Your task to perform on an android device: Set the phone to "Do not disturb". Image 0: 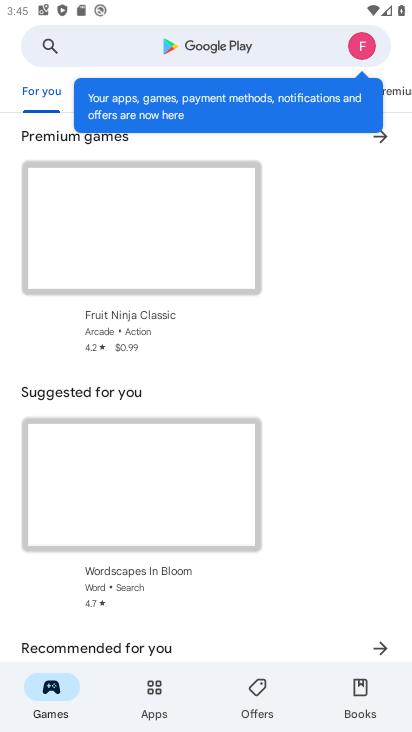
Step 0: press home button
Your task to perform on an android device: Set the phone to "Do not disturb". Image 1: 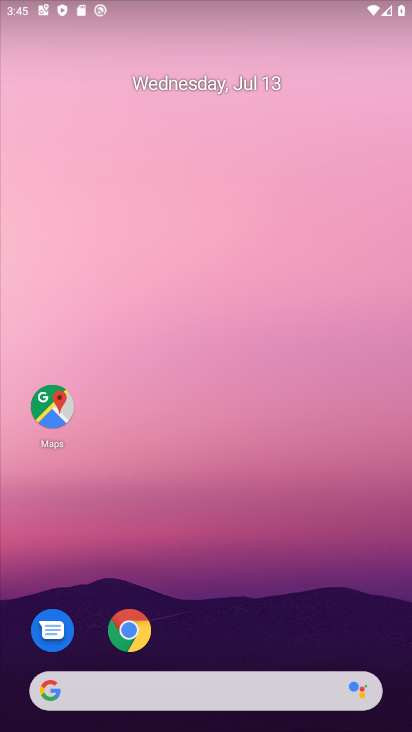
Step 1: drag from (292, 624) to (331, 33)
Your task to perform on an android device: Set the phone to "Do not disturb". Image 2: 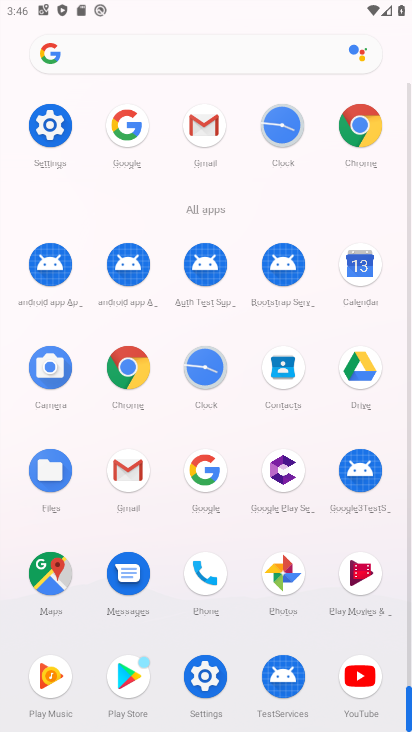
Step 2: click (60, 127)
Your task to perform on an android device: Set the phone to "Do not disturb". Image 3: 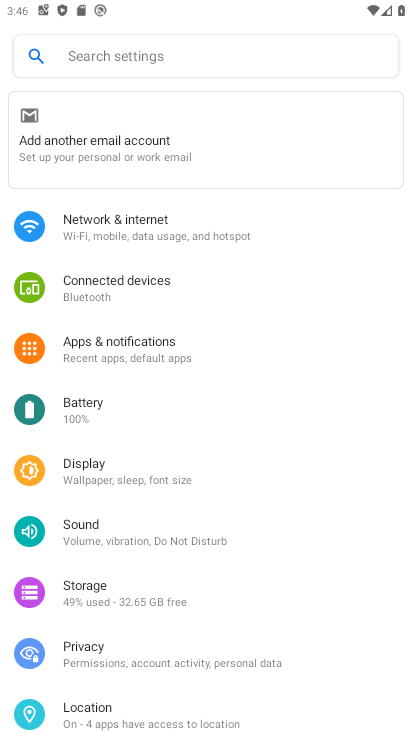
Step 3: click (147, 554)
Your task to perform on an android device: Set the phone to "Do not disturb". Image 4: 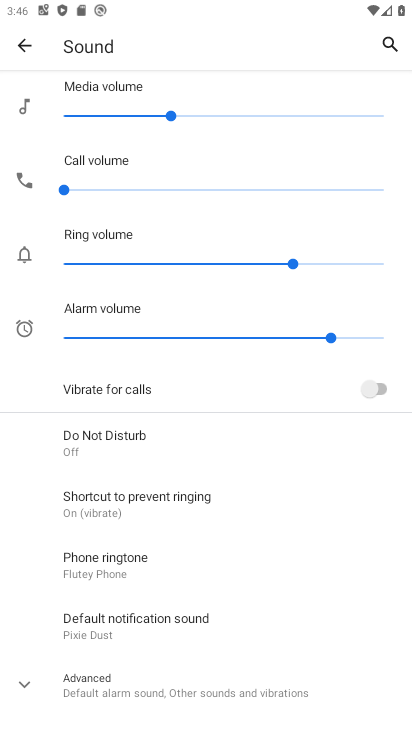
Step 4: click (76, 445)
Your task to perform on an android device: Set the phone to "Do not disturb". Image 5: 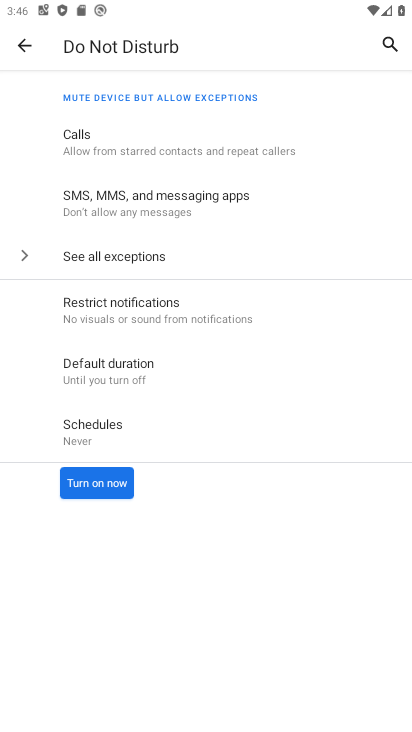
Step 5: click (100, 479)
Your task to perform on an android device: Set the phone to "Do not disturb". Image 6: 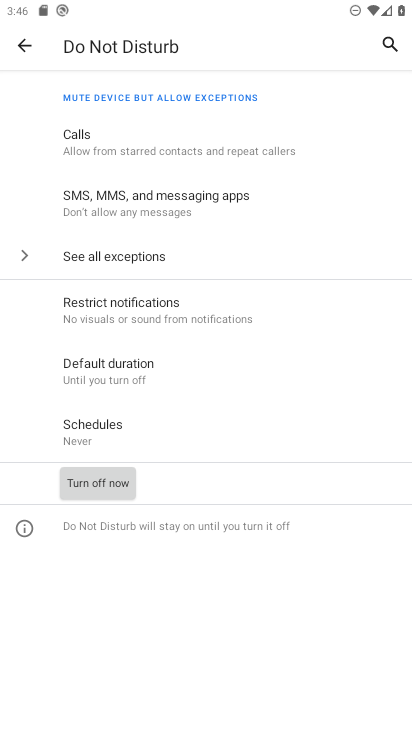
Step 6: task complete